Your task to perform on an android device: show emergency info Image 0: 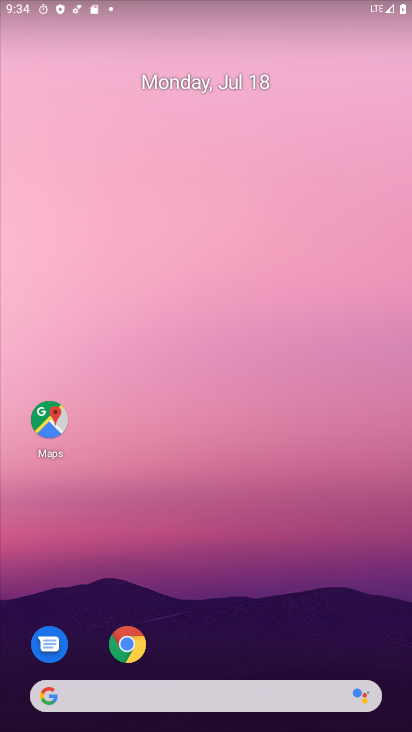
Step 0: press home button
Your task to perform on an android device: show emergency info Image 1: 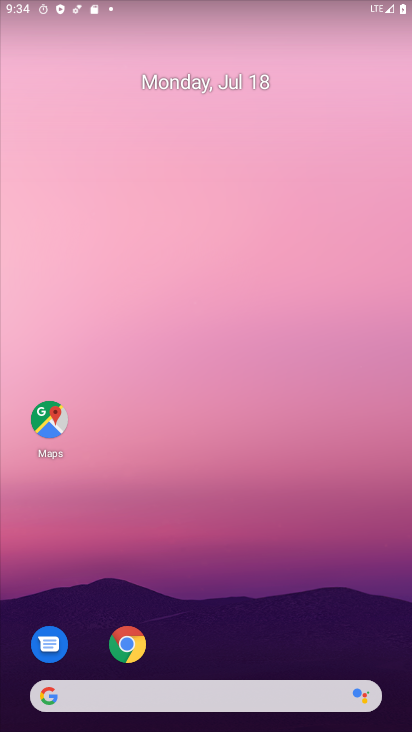
Step 1: drag from (204, 664) to (216, 33)
Your task to perform on an android device: show emergency info Image 2: 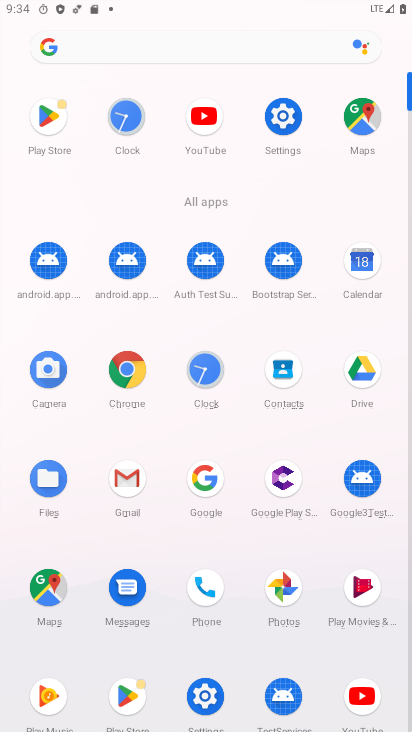
Step 2: click (281, 111)
Your task to perform on an android device: show emergency info Image 3: 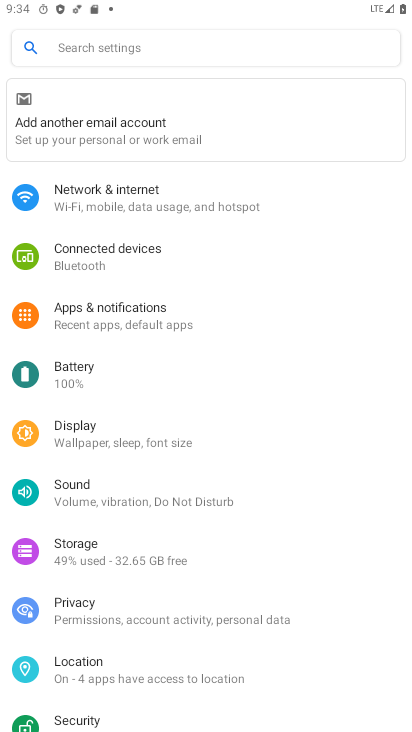
Step 3: drag from (183, 697) to (199, 48)
Your task to perform on an android device: show emergency info Image 4: 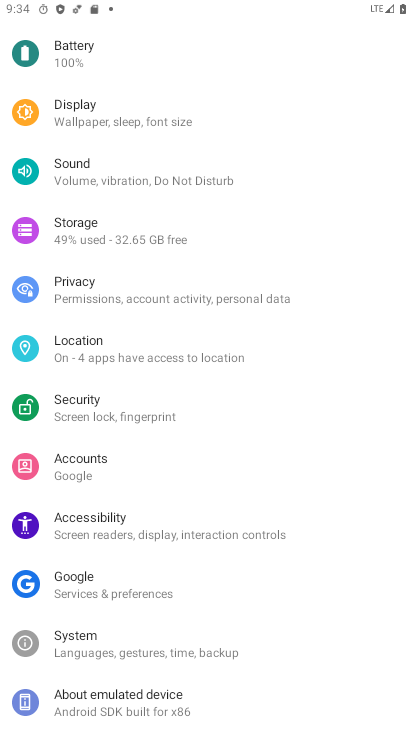
Step 4: click (195, 696)
Your task to perform on an android device: show emergency info Image 5: 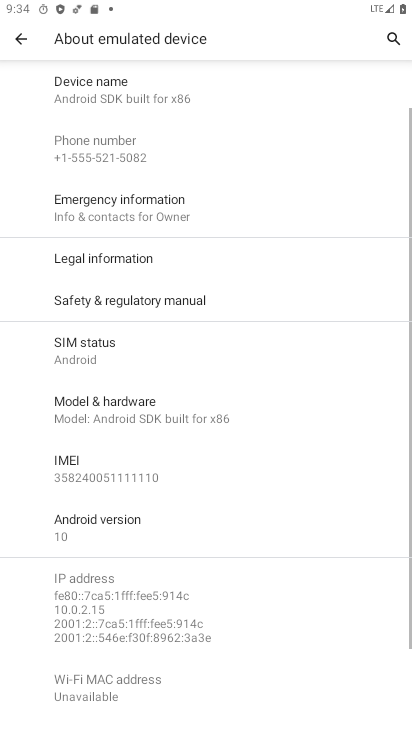
Step 5: click (198, 207)
Your task to perform on an android device: show emergency info Image 6: 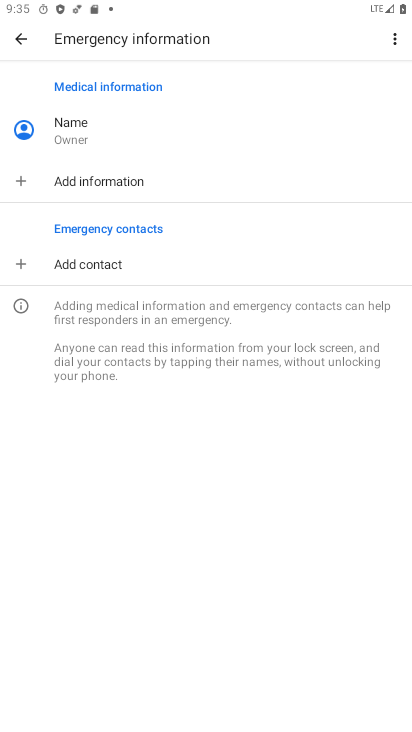
Step 6: task complete